Your task to perform on an android device: Is it going to rain tomorrow? Image 0: 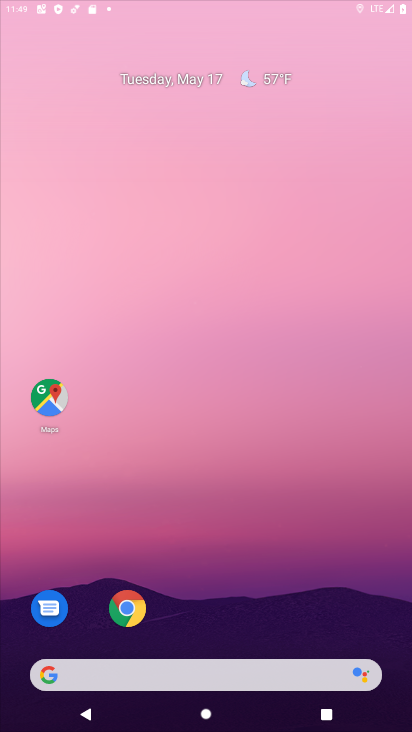
Step 0: press home button
Your task to perform on an android device: Is it going to rain tomorrow? Image 1: 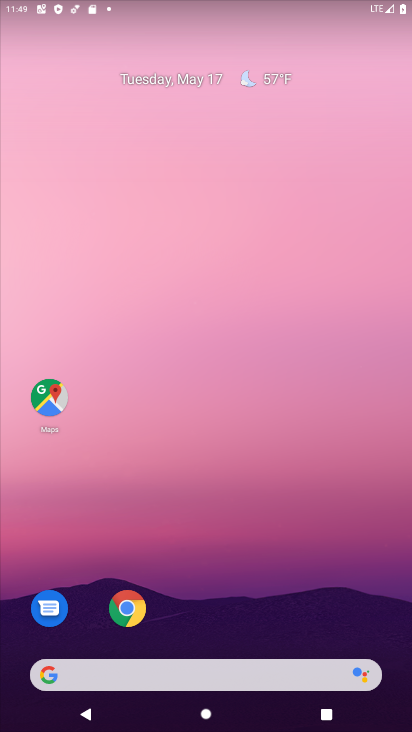
Step 1: drag from (221, 458) to (283, 3)
Your task to perform on an android device: Is it going to rain tomorrow? Image 2: 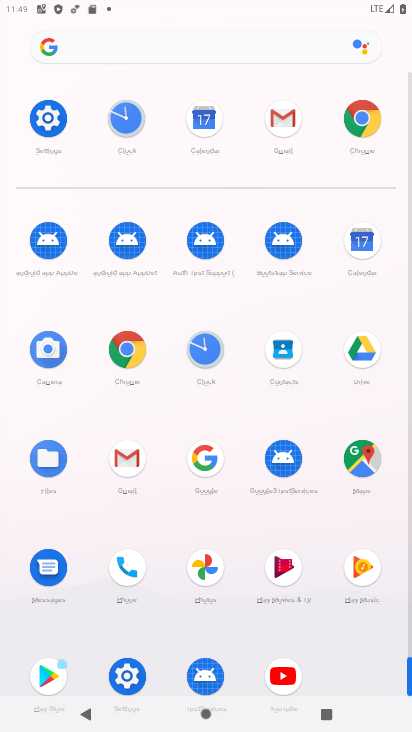
Step 2: click (97, 37)
Your task to perform on an android device: Is it going to rain tomorrow? Image 3: 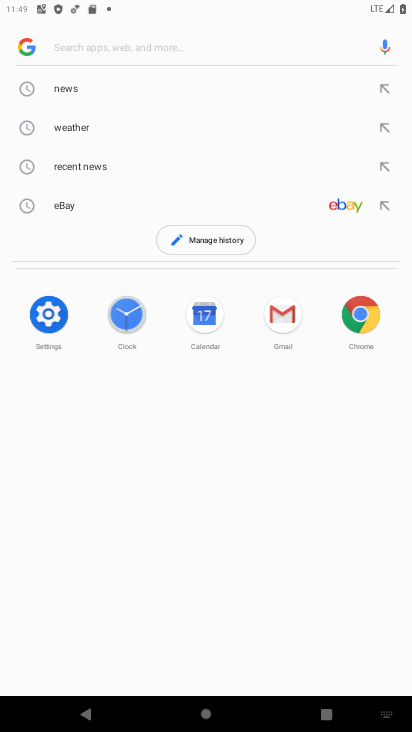
Step 3: click (64, 122)
Your task to perform on an android device: Is it going to rain tomorrow? Image 4: 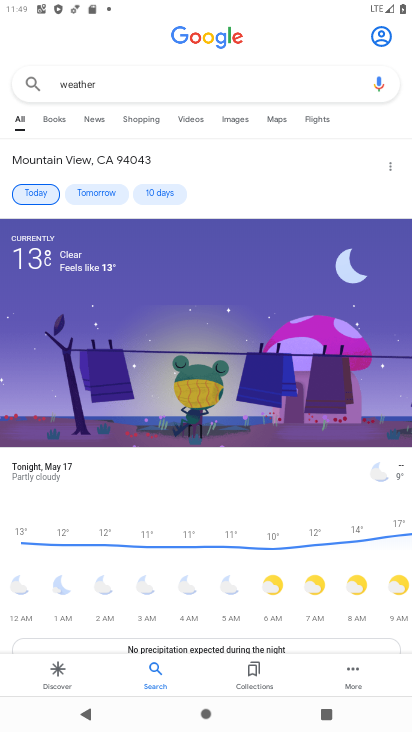
Step 4: click (89, 192)
Your task to perform on an android device: Is it going to rain tomorrow? Image 5: 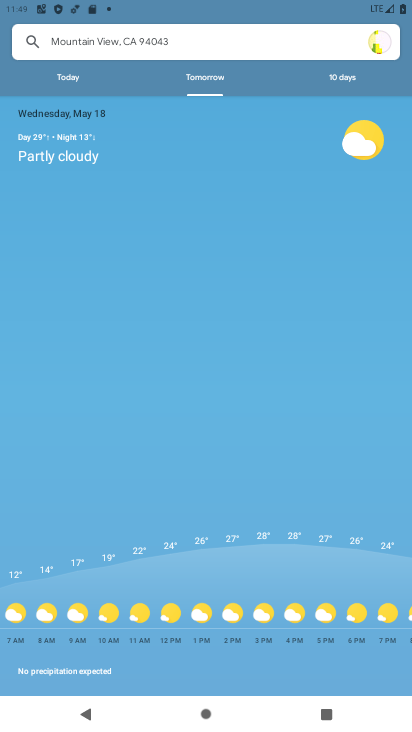
Step 5: task complete